Your task to perform on an android device: What's the weather going to be this weekend? Image 0: 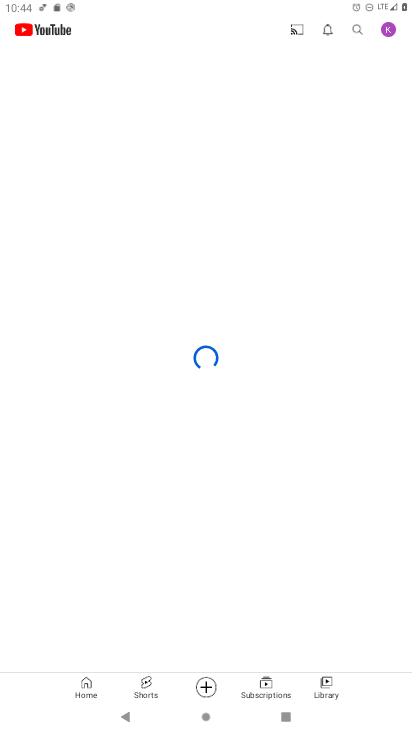
Step 0: press home button
Your task to perform on an android device: What's the weather going to be this weekend? Image 1: 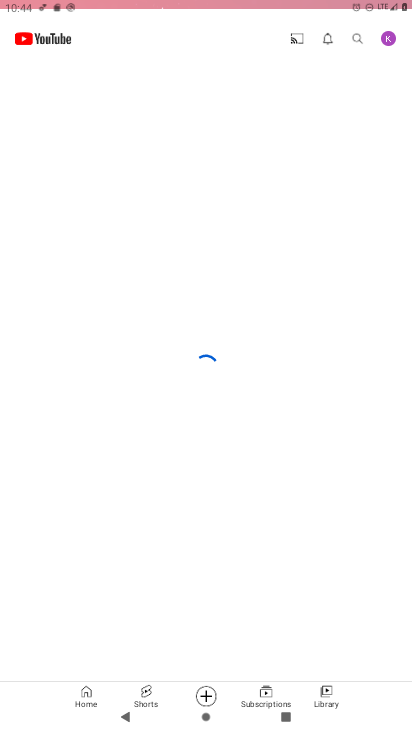
Step 1: drag from (353, 689) to (1, 156)
Your task to perform on an android device: What's the weather going to be this weekend? Image 2: 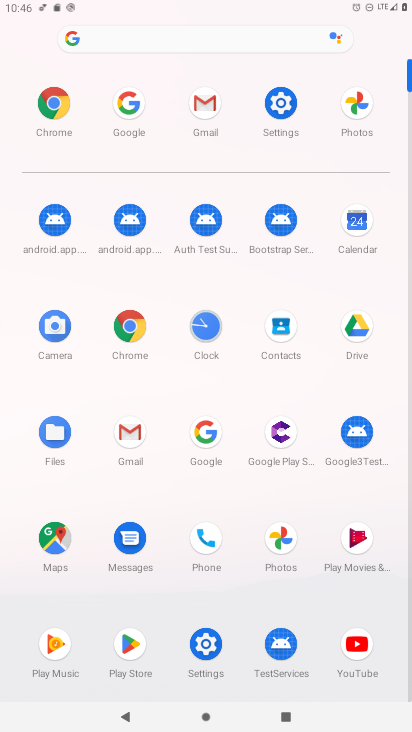
Step 2: click (218, 441)
Your task to perform on an android device: What's the weather going to be this weekend? Image 3: 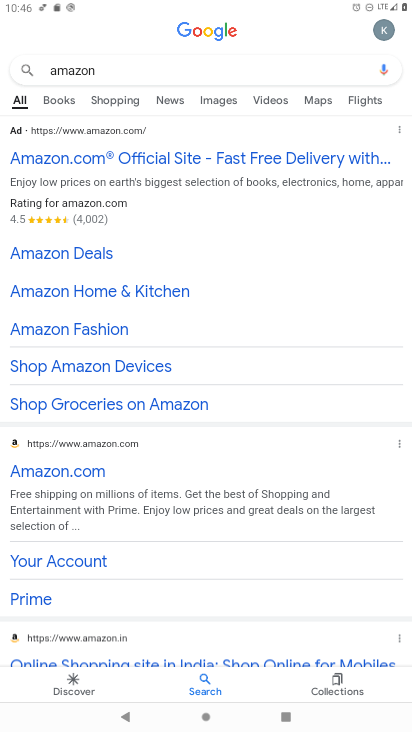
Step 3: press back button
Your task to perform on an android device: What's the weather going to be this weekend? Image 4: 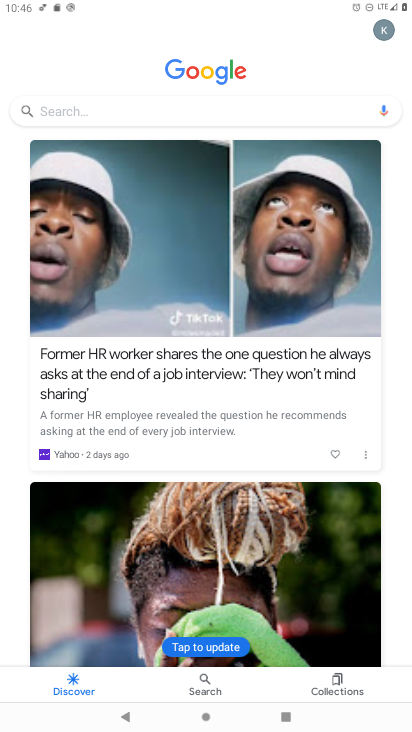
Step 4: click (104, 113)
Your task to perform on an android device: What's the weather going to be this weekend? Image 5: 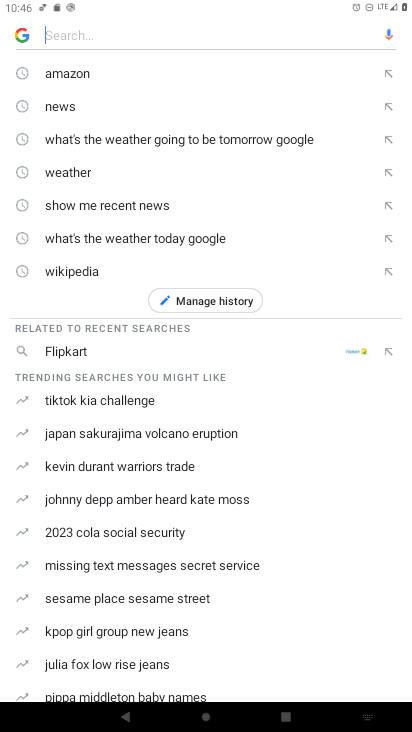
Step 5: click (12, 731)
Your task to perform on an android device: What's the weather going to be this weekend? Image 6: 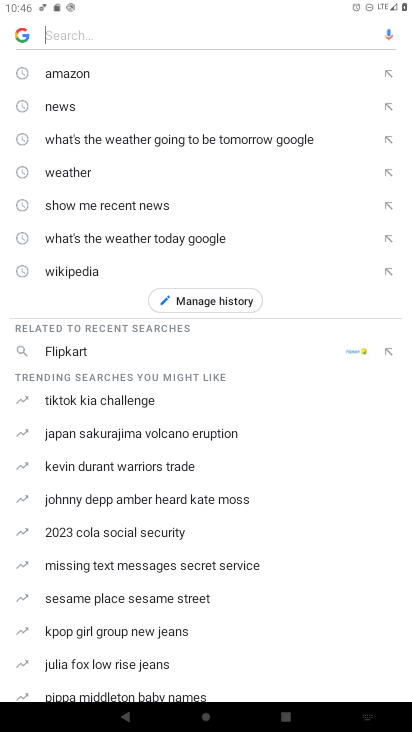
Step 6: type "What's the weather going to be this weekend?"
Your task to perform on an android device: What's the weather going to be this weekend? Image 7: 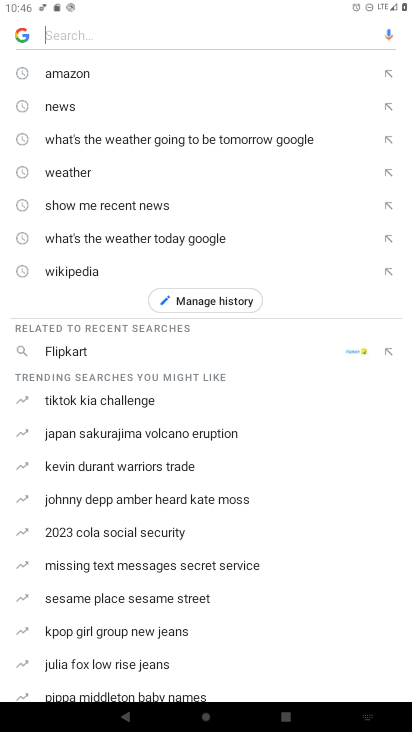
Step 7: drag from (21, 731) to (151, 7)
Your task to perform on an android device: What's the weather going to be this weekend? Image 8: 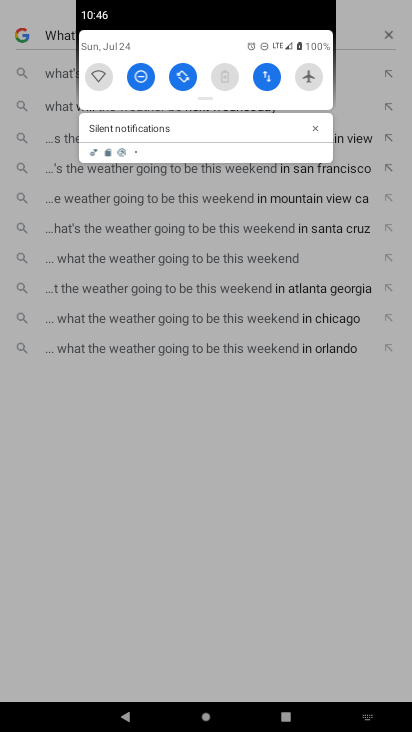
Step 8: click (202, 74)
Your task to perform on an android device: What's the weather going to be this weekend? Image 9: 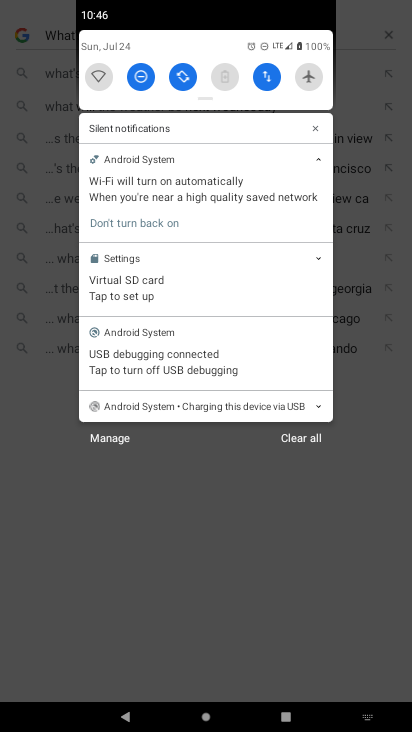
Step 9: click (181, 487)
Your task to perform on an android device: What's the weather going to be this weekend? Image 10: 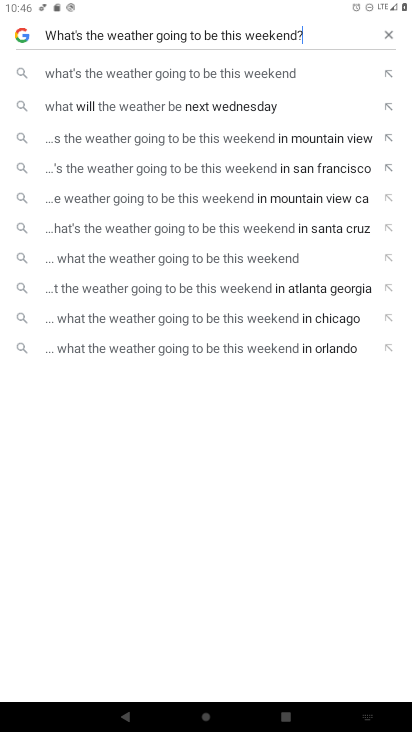
Step 10: click (166, 77)
Your task to perform on an android device: What's the weather going to be this weekend? Image 11: 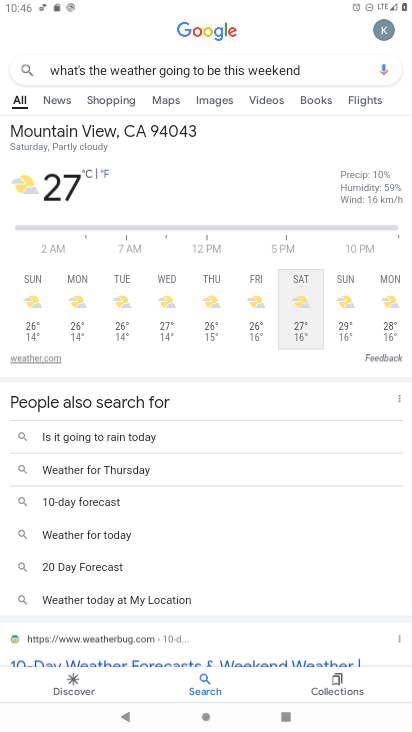
Step 11: task complete